Your task to perform on an android device: turn notification dots off Image 0: 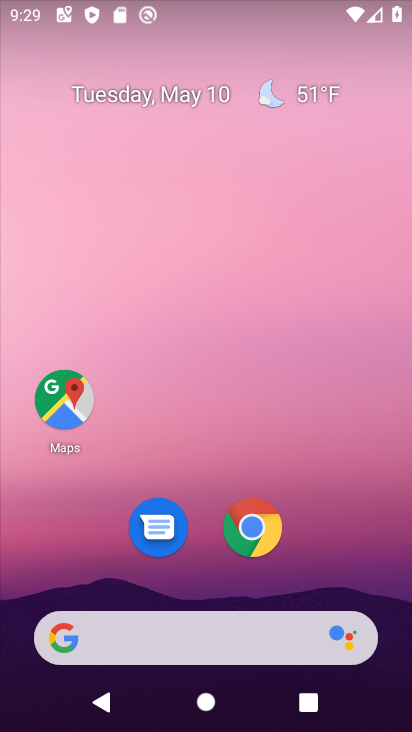
Step 0: drag from (236, 724) to (256, 279)
Your task to perform on an android device: turn notification dots off Image 1: 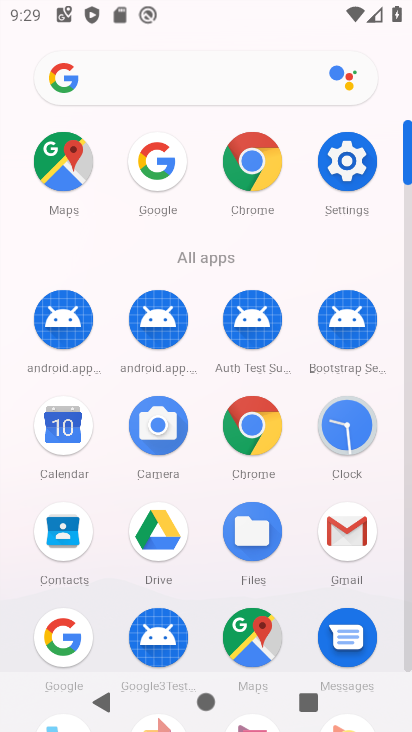
Step 1: click (348, 151)
Your task to perform on an android device: turn notification dots off Image 2: 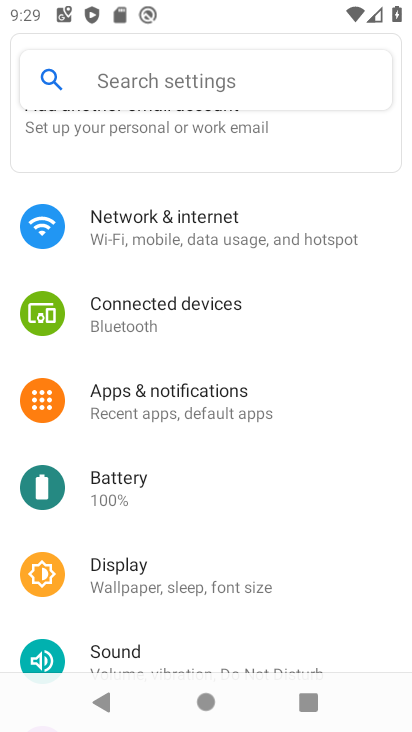
Step 2: click (183, 391)
Your task to perform on an android device: turn notification dots off Image 3: 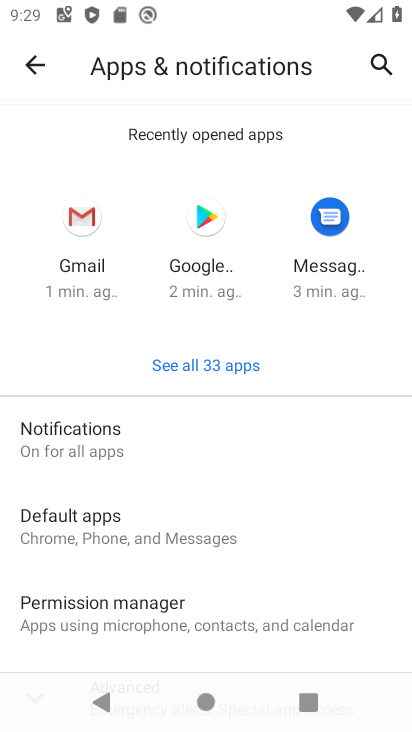
Step 3: click (83, 447)
Your task to perform on an android device: turn notification dots off Image 4: 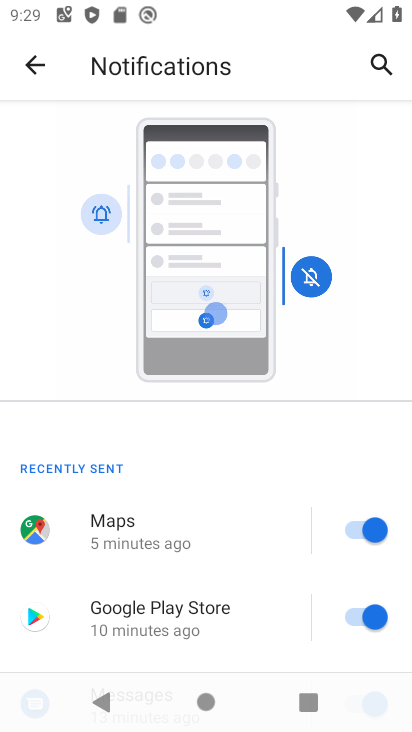
Step 4: drag from (146, 599) to (173, 349)
Your task to perform on an android device: turn notification dots off Image 5: 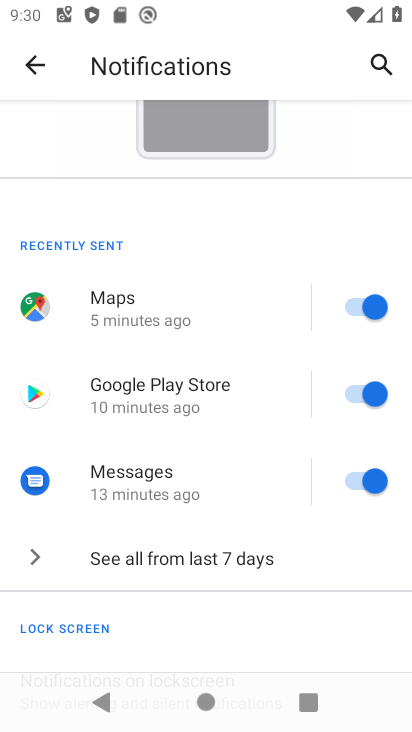
Step 5: drag from (201, 614) to (210, 356)
Your task to perform on an android device: turn notification dots off Image 6: 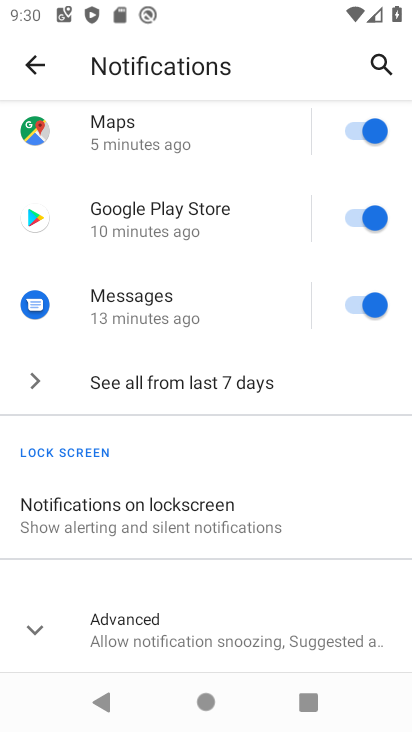
Step 6: click (138, 621)
Your task to perform on an android device: turn notification dots off Image 7: 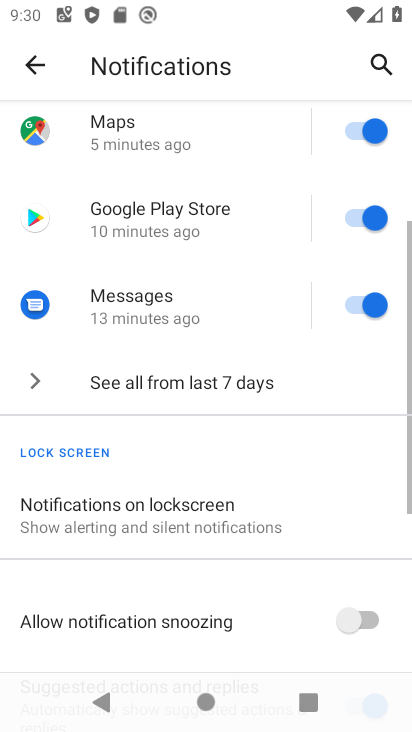
Step 7: drag from (234, 639) to (241, 449)
Your task to perform on an android device: turn notification dots off Image 8: 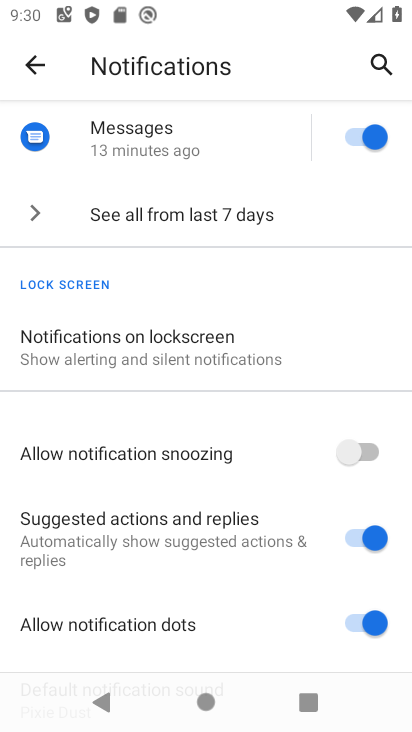
Step 8: click (350, 626)
Your task to perform on an android device: turn notification dots off Image 9: 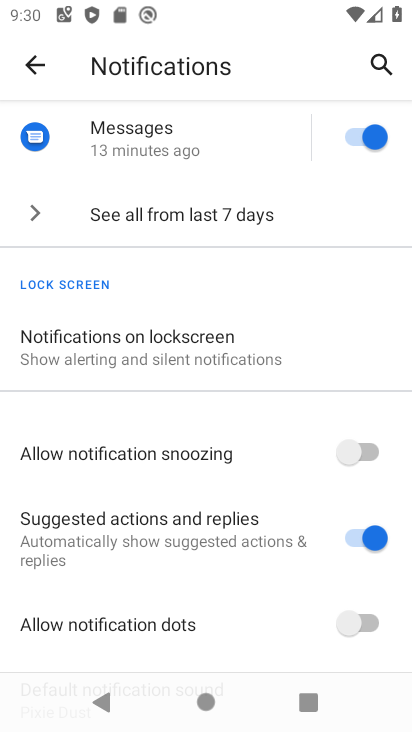
Step 9: task complete